Your task to perform on an android device: toggle sleep mode Image 0: 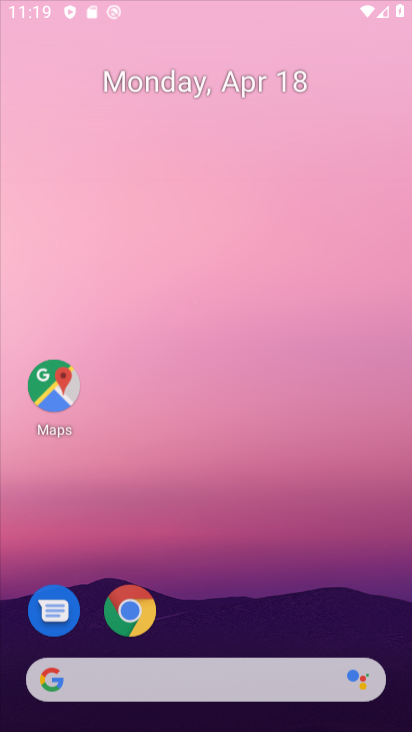
Step 0: click (227, 189)
Your task to perform on an android device: toggle sleep mode Image 1: 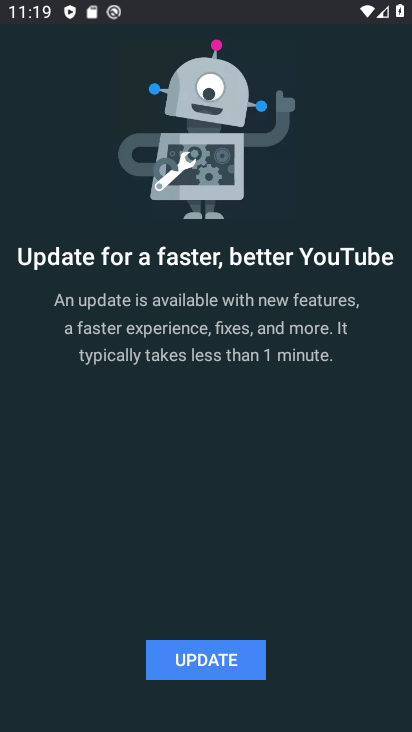
Step 1: press home button
Your task to perform on an android device: toggle sleep mode Image 2: 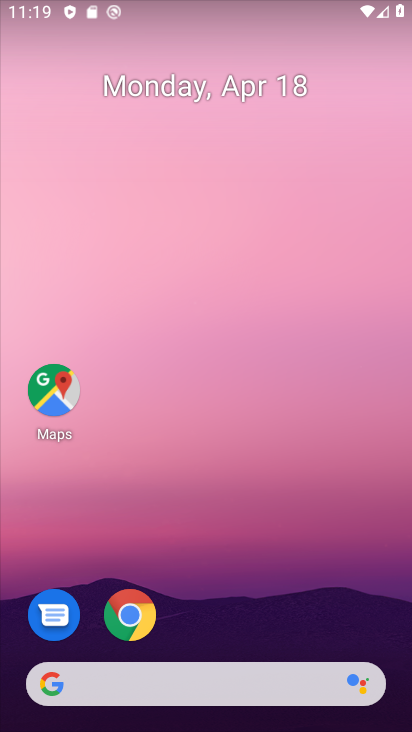
Step 2: drag from (216, 555) to (234, 187)
Your task to perform on an android device: toggle sleep mode Image 3: 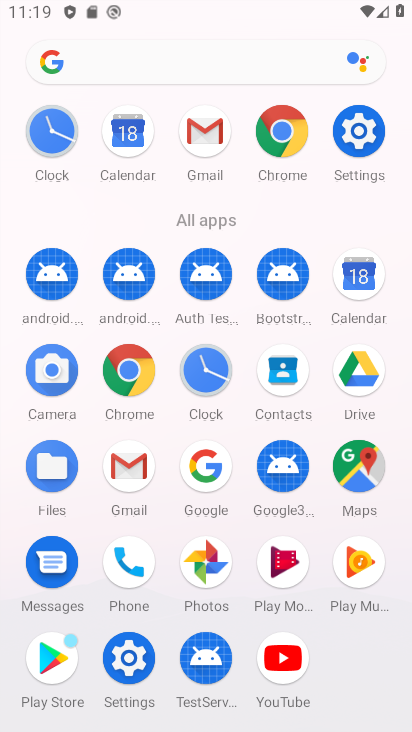
Step 3: click (360, 131)
Your task to perform on an android device: toggle sleep mode Image 4: 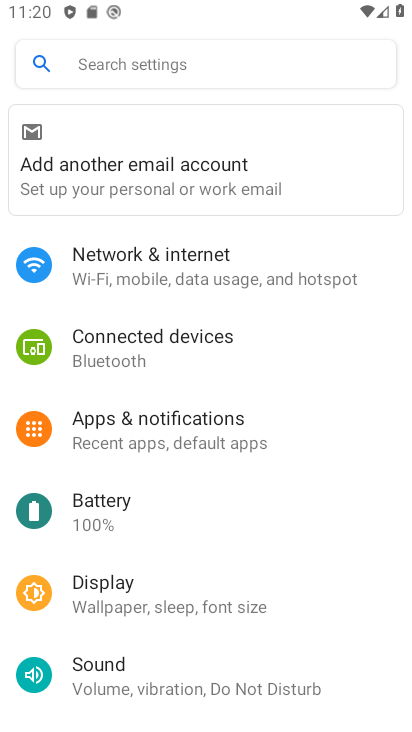
Step 4: click (215, 587)
Your task to perform on an android device: toggle sleep mode Image 5: 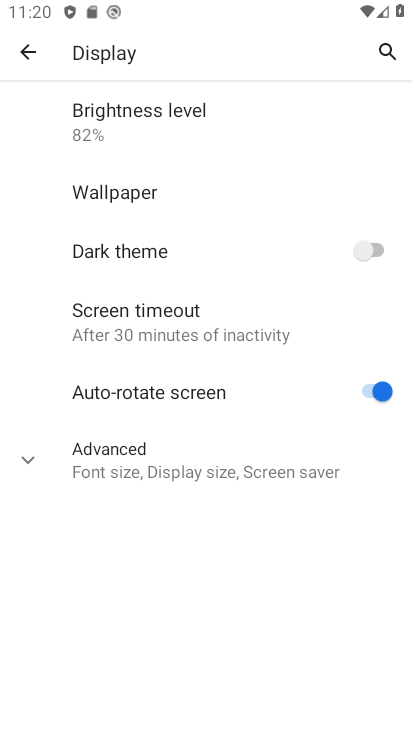
Step 5: click (150, 324)
Your task to perform on an android device: toggle sleep mode Image 6: 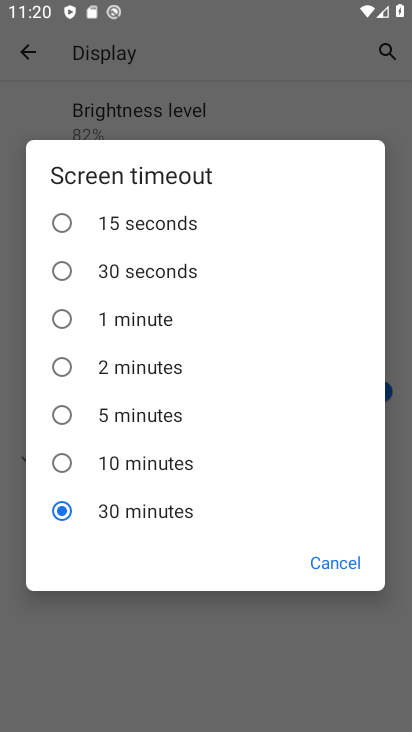
Step 6: click (160, 407)
Your task to perform on an android device: toggle sleep mode Image 7: 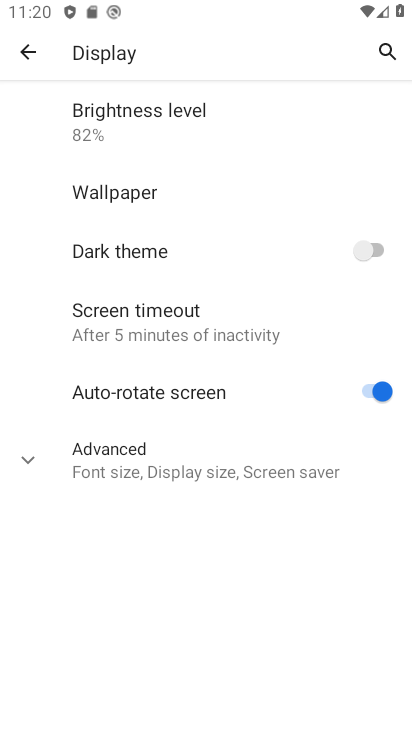
Step 7: task complete